Your task to perform on an android device: turn off translation in the chrome app Image 0: 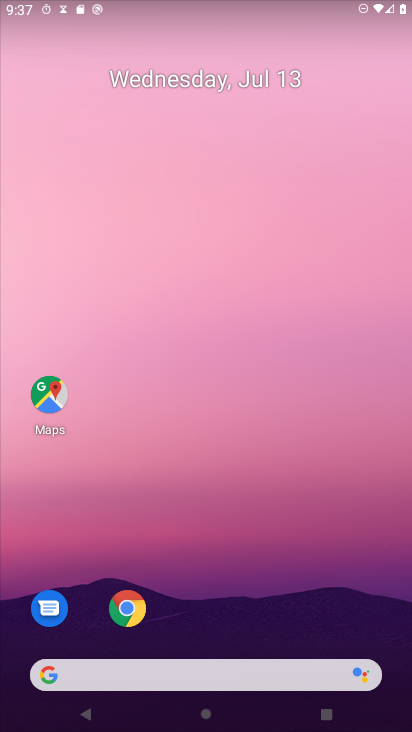
Step 0: drag from (245, 397) to (242, 40)
Your task to perform on an android device: turn off translation in the chrome app Image 1: 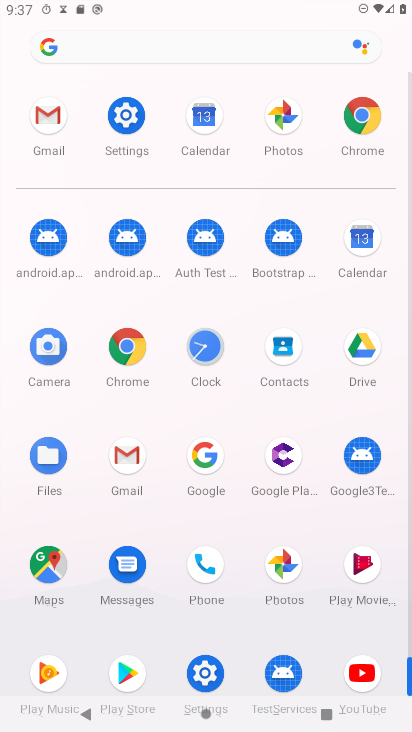
Step 1: click (366, 126)
Your task to perform on an android device: turn off translation in the chrome app Image 2: 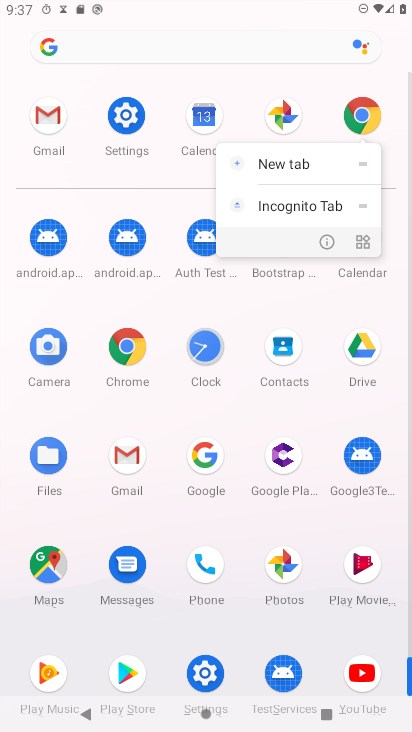
Step 2: click (366, 124)
Your task to perform on an android device: turn off translation in the chrome app Image 3: 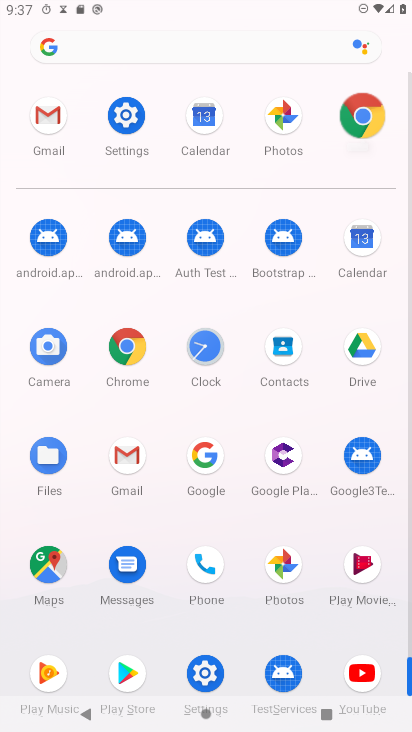
Step 3: click (367, 125)
Your task to perform on an android device: turn off translation in the chrome app Image 4: 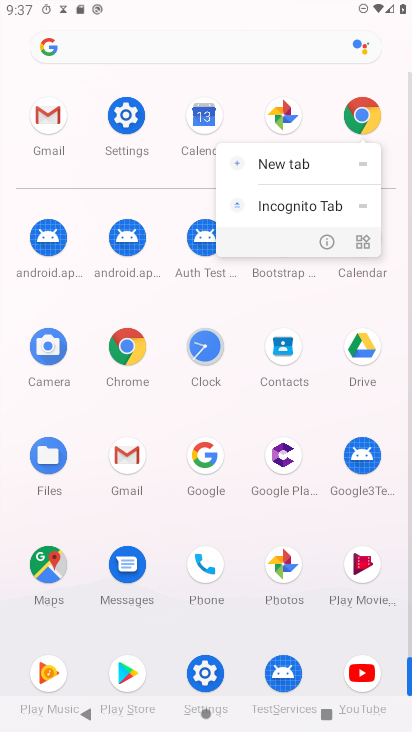
Step 4: click (369, 126)
Your task to perform on an android device: turn off translation in the chrome app Image 5: 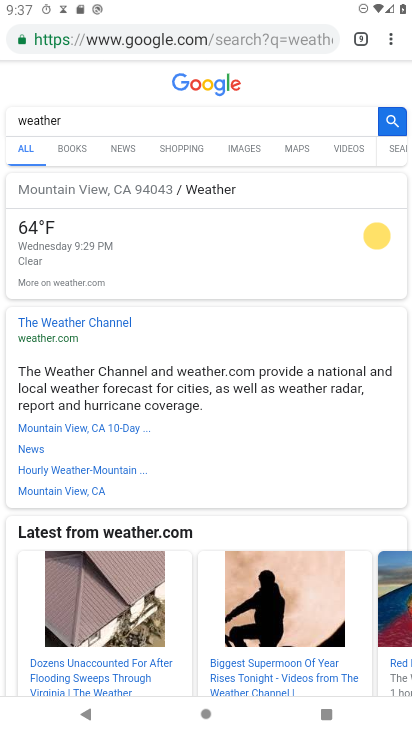
Step 5: drag from (391, 35) to (258, 439)
Your task to perform on an android device: turn off translation in the chrome app Image 6: 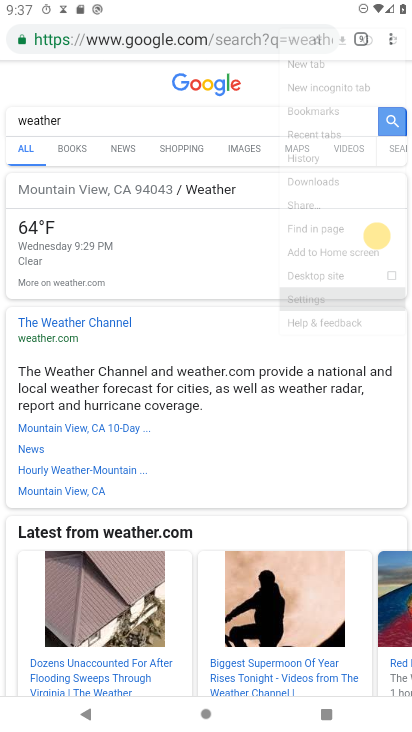
Step 6: click (258, 439)
Your task to perform on an android device: turn off translation in the chrome app Image 7: 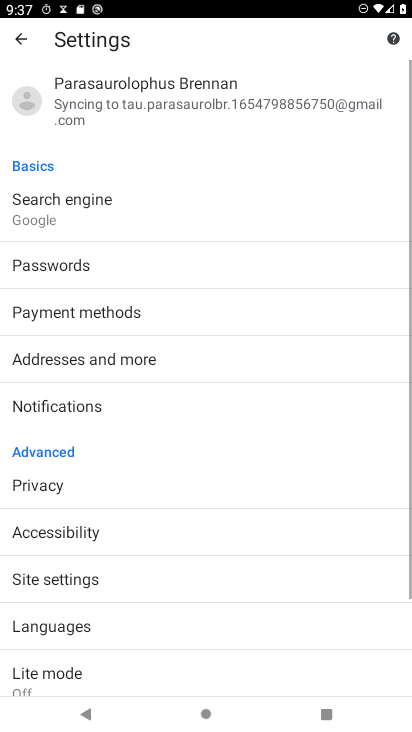
Step 7: drag from (121, 624) to (137, 437)
Your task to perform on an android device: turn off translation in the chrome app Image 8: 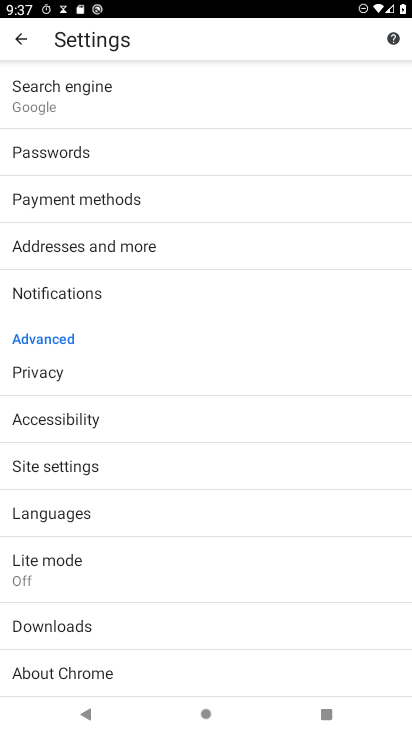
Step 8: click (65, 503)
Your task to perform on an android device: turn off translation in the chrome app Image 9: 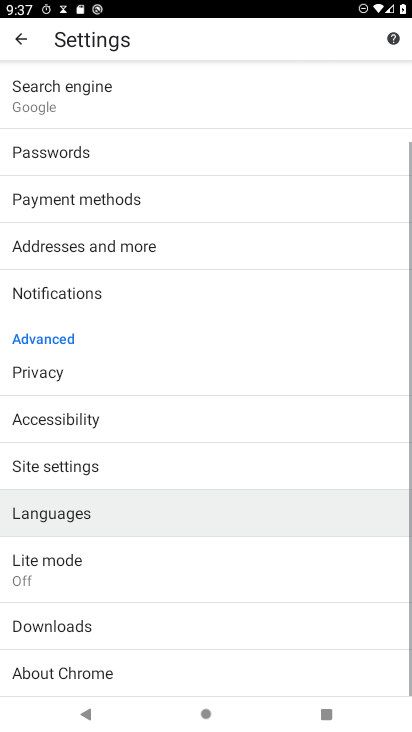
Step 9: task complete